Your task to perform on an android device: turn off improve location accuracy Image 0: 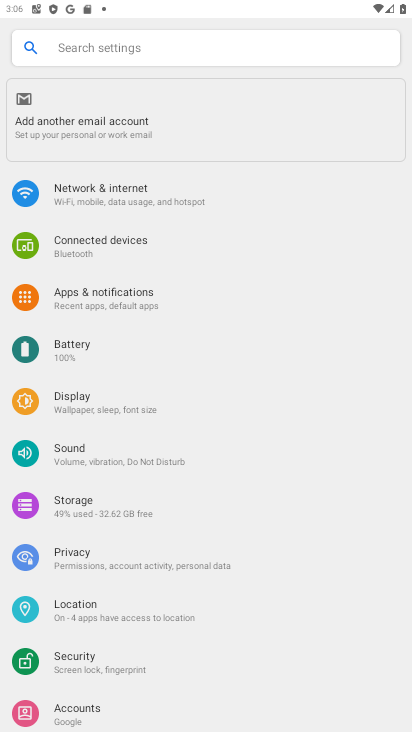
Step 0: click (82, 603)
Your task to perform on an android device: turn off improve location accuracy Image 1: 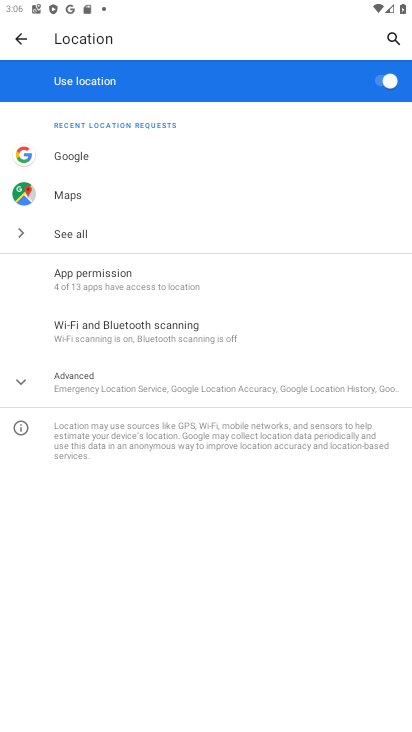
Step 1: task complete